Your task to perform on an android device: find snoozed emails in the gmail app Image 0: 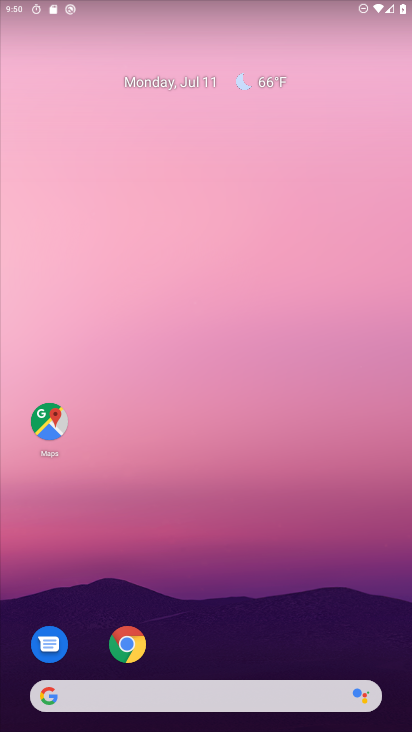
Step 0: drag from (274, 338) to (238, 62)
Your task to perform on an android device: find snoozed emails in the gmail app Image 1: 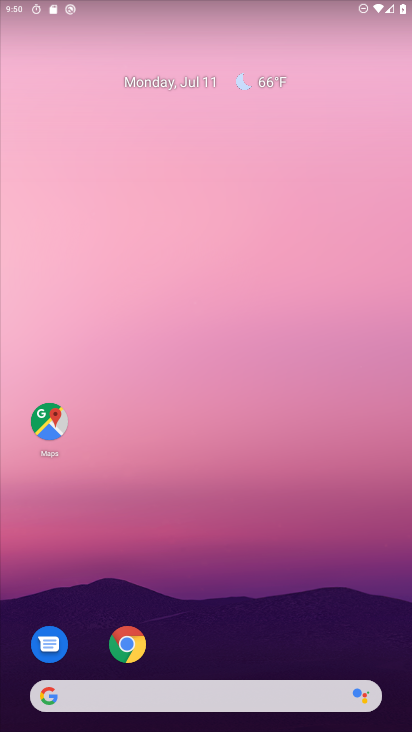
Step 1: drag from (378, 607) to (254, 109)
Your task to perform on an android device: find snoozed emails in the gmail app Image 2: 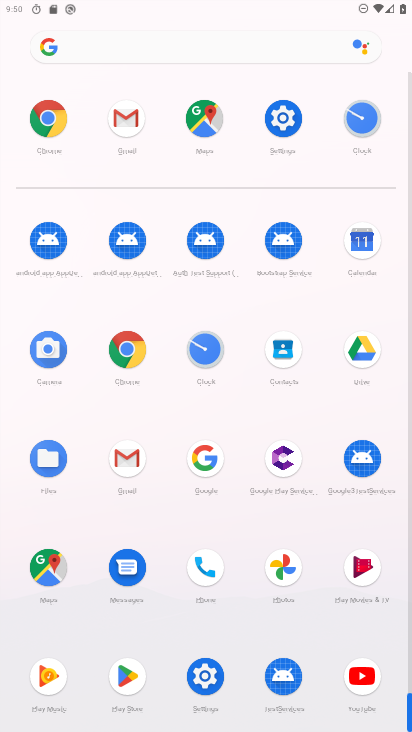
Step 2: click (126, 113)
Your task to perform on an android device: find snoozed emails in the gmail app Image 3: 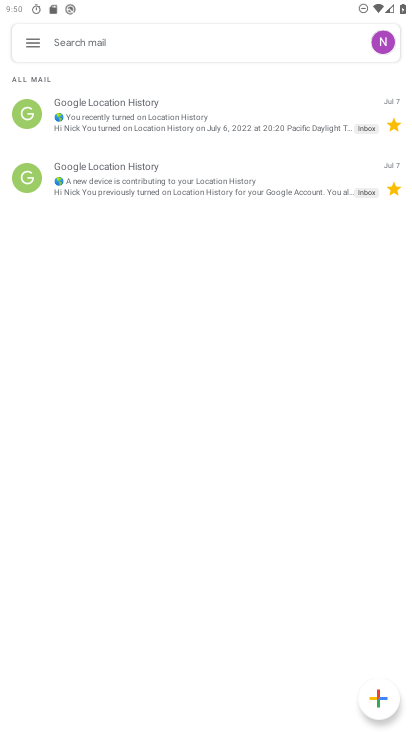
Step 3: click (37, 42)
Your task to perform on an android device: find snoozed emails in the gmail app Image 4: 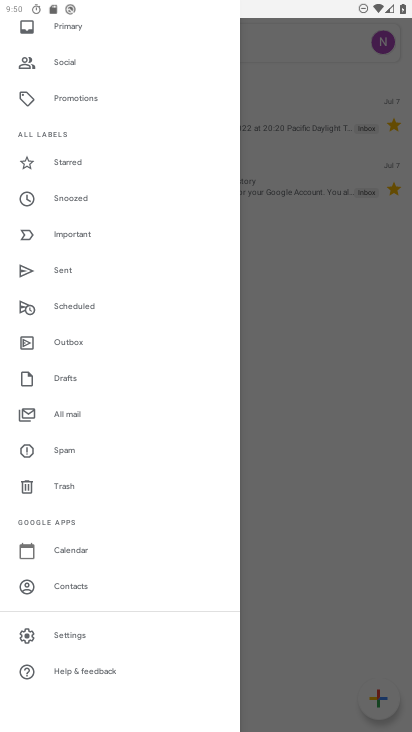
Step 4: click (67, 197)
Your task to perform on an android device: find snoozed emails in the gmail app Image 5: 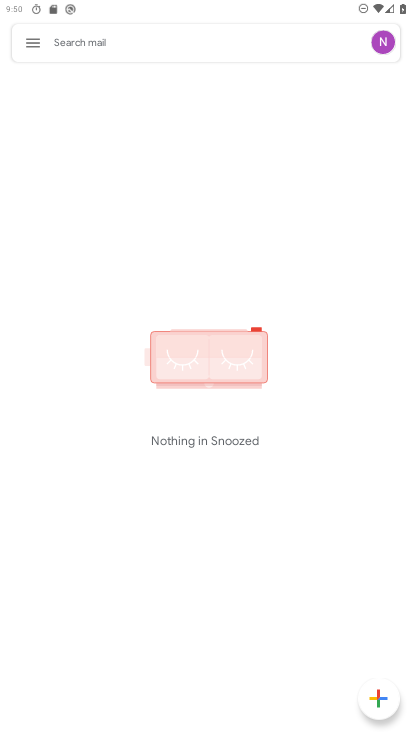
Step 5: task complete